Your task to perform on an android device: turn on showing notifications on the lock screen Image 0: 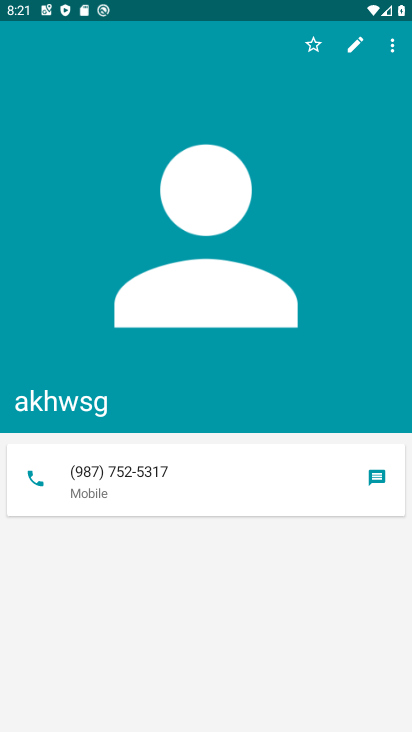
Step 0: press home button
Your task to perform on an android device: turn on showing notifications on the lock screen Image 1: 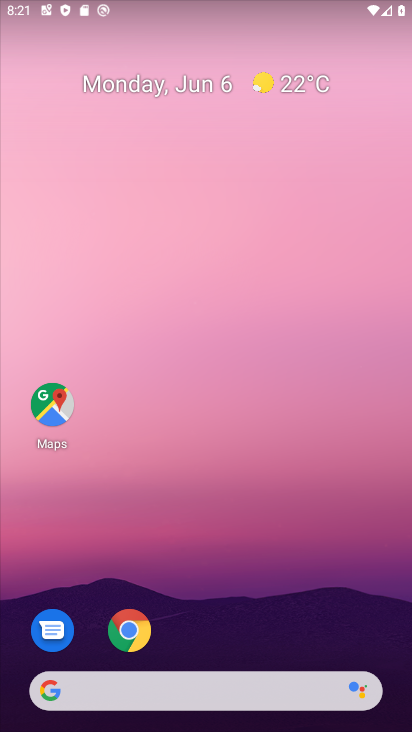
Step 1: drag from (128, 725) to (230, 121)
Your task to perform on an android device: turn on showing notifications on the lock screen Image 2: 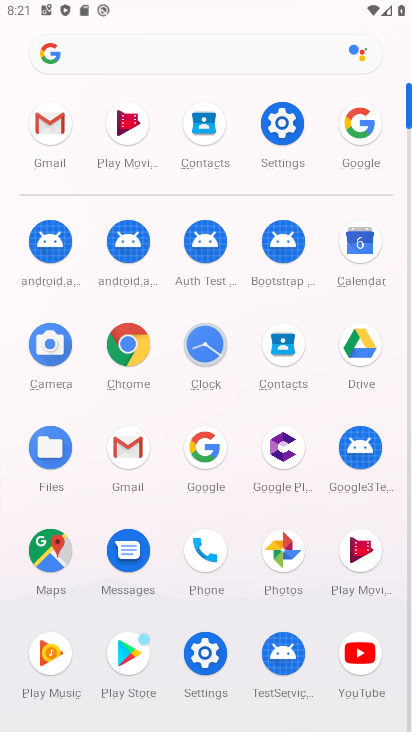
Step 2: click (266, 139)
Your task to perform on an android device: turn on showing notifications on the lock screen Image 3: 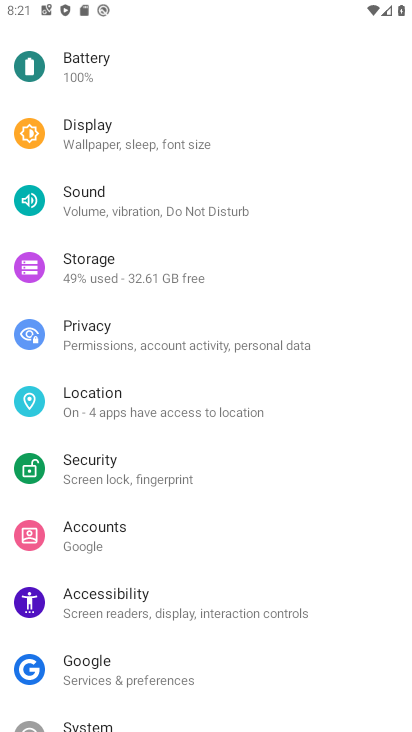
Step 3: drag from (227, 110) to (264, 383)
Your task to perform on an android device: turn on showing notifications on the lock screen Image 4: 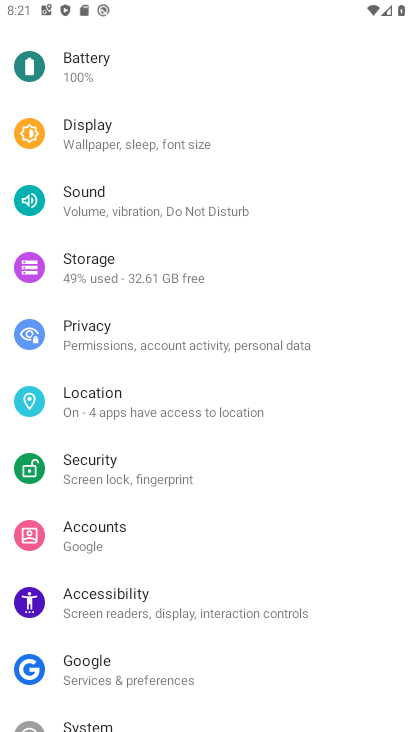
Step 4: drag from (302, 108) to (264, 615)
Your task to perform on an android device: turn on showing notifications on the lock screen Image 5: 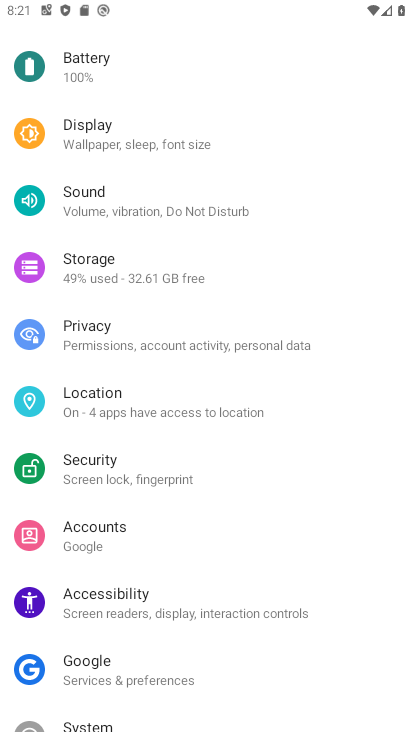
Step 5: drag from (218, 113) to (162, 590)
Your task to perform on an android device: turn on showing notifications on the lock screen Image 6: 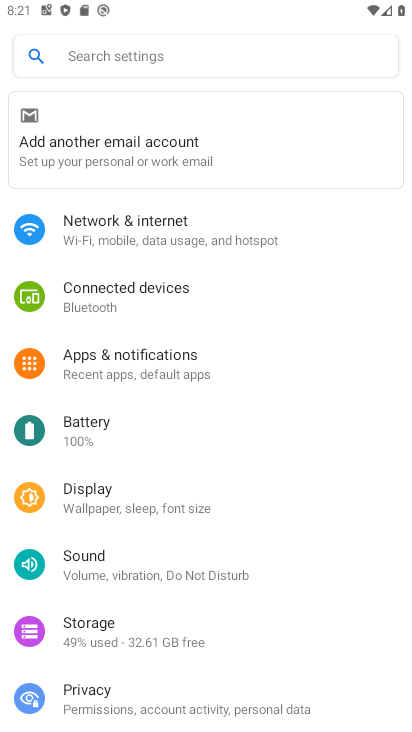
Step 6: click (177, 366)
Your task to perform on an android device: turn on showing notifications on the lock screen Image 7: 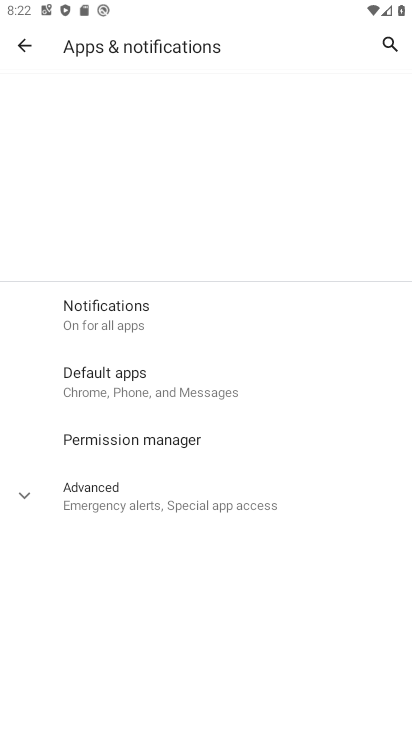
Step 7: click (170, 306)
Your task to perform on an android device: turn on showing notifications on the lock screen Image 8: 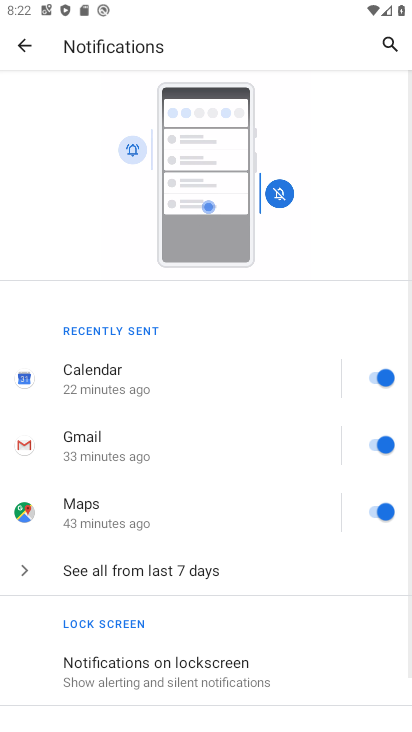
Step 8: click (177, 675)
Your task to perform on an android device: turn on showing notifications on the lock screen Image 9: 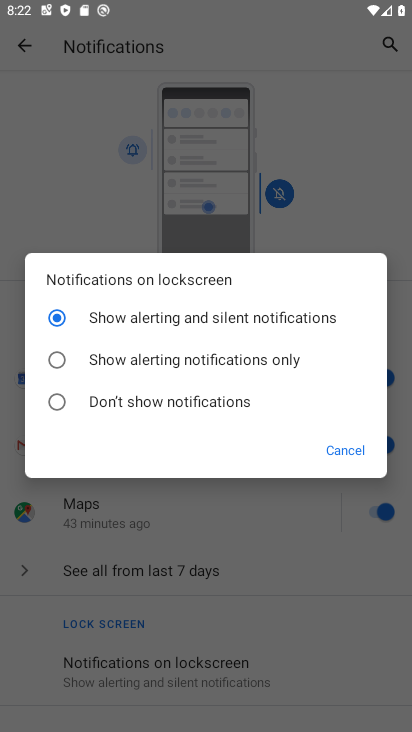
Step 9: task complete